Your task to perform on an android device: turn on sleep mode Image 0: 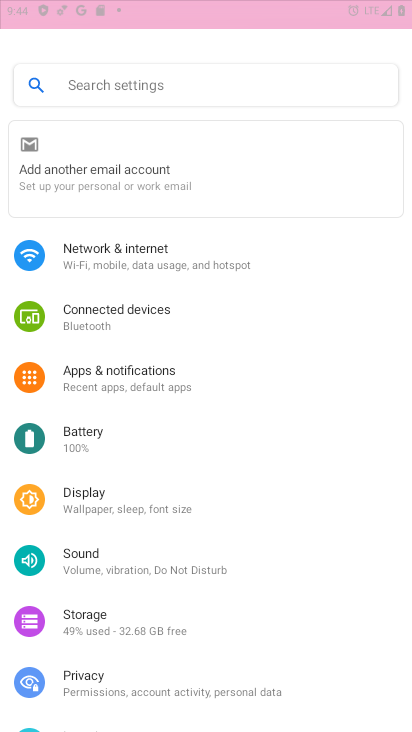
Step 0: press home button
Your task to perform on an android device: turn on sleep mode Image 1: 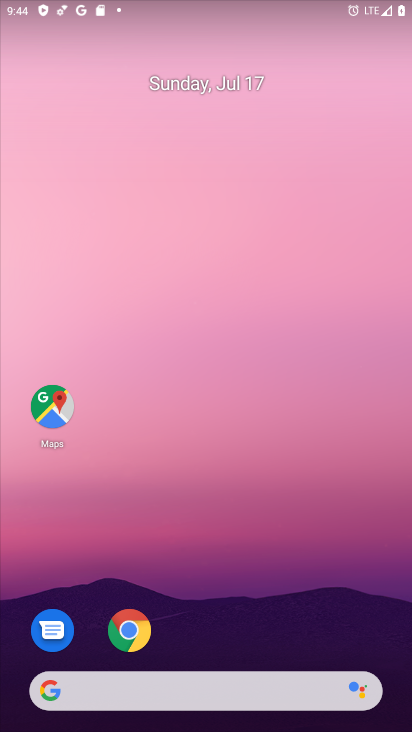
Step 1: press home button
Your task to perform on an android device: turn on sleep mode Image 2: 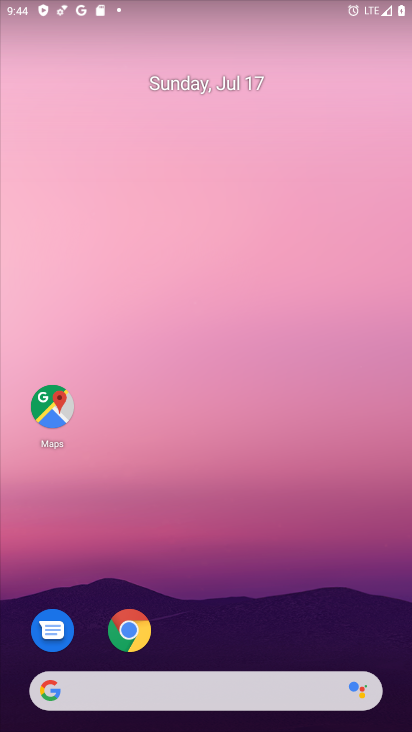
Step 2: drag from (207, 646) to (252, 92)
Your task to perform on an android device: turn on sleep mode Image 3: 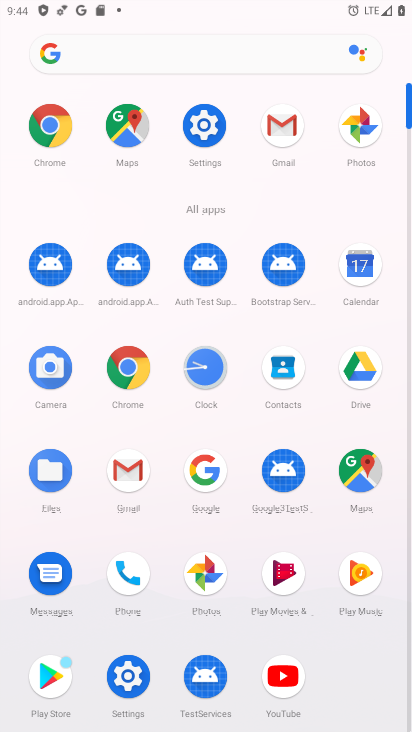
Step 3: click (205, 120)
Your task to perform on an android device: turn on sleep mode Image 4: 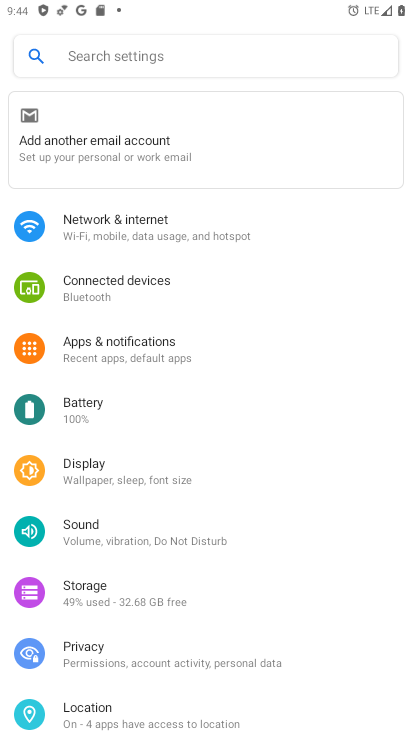
Step 4: click (116, 460)
Your task to perform on an android device: turn on sleep mode Image 5: 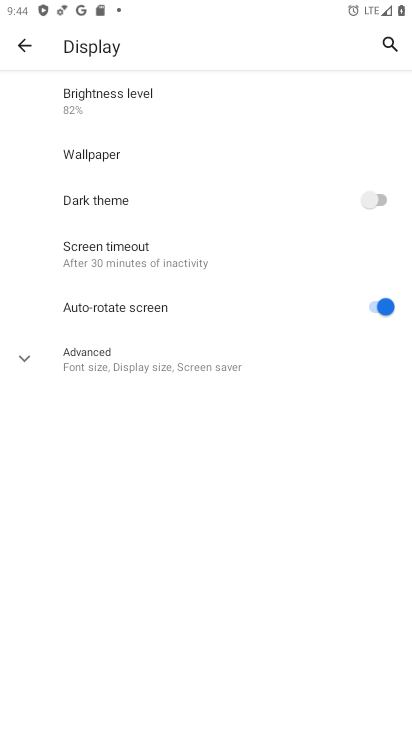
Step 5: click (27, 343)
Your task to perform on an android device: turn on sleep mode Image 6: 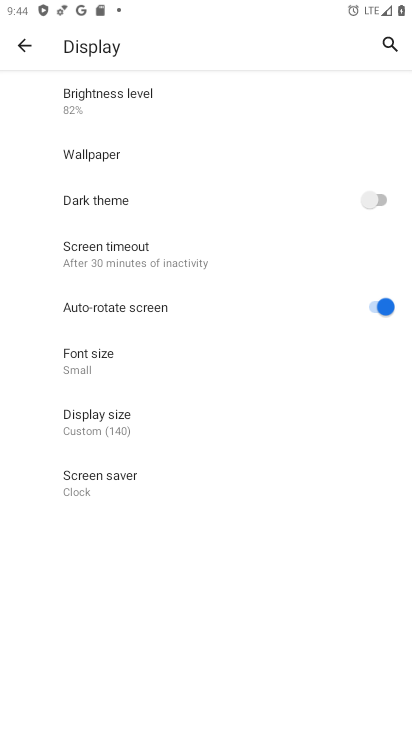
Step 6: task complete